Your task to perform on an android device: uninstall "Google News" Image 0: 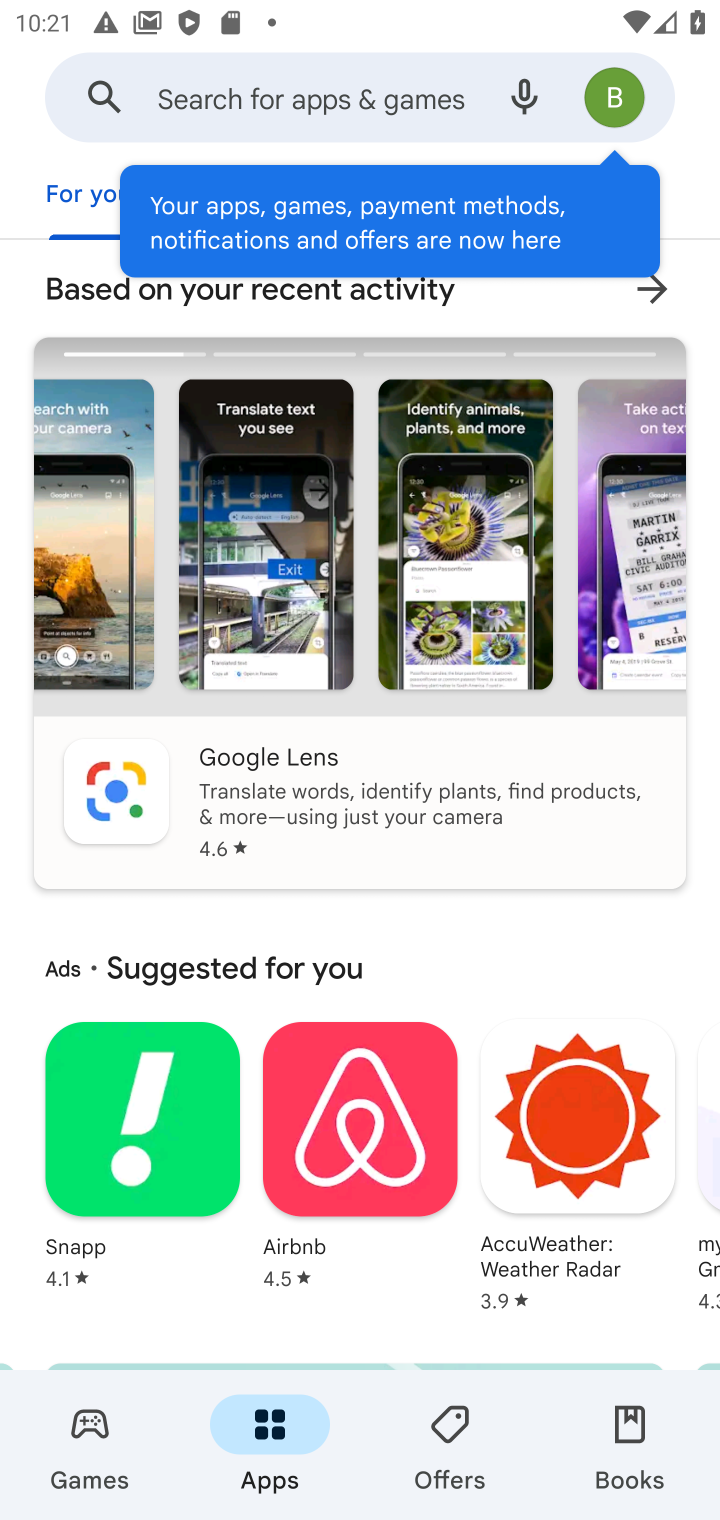
Step 0: click (351, 107)
Your task to perform on an android device: uninstall "Google News" Image 1: 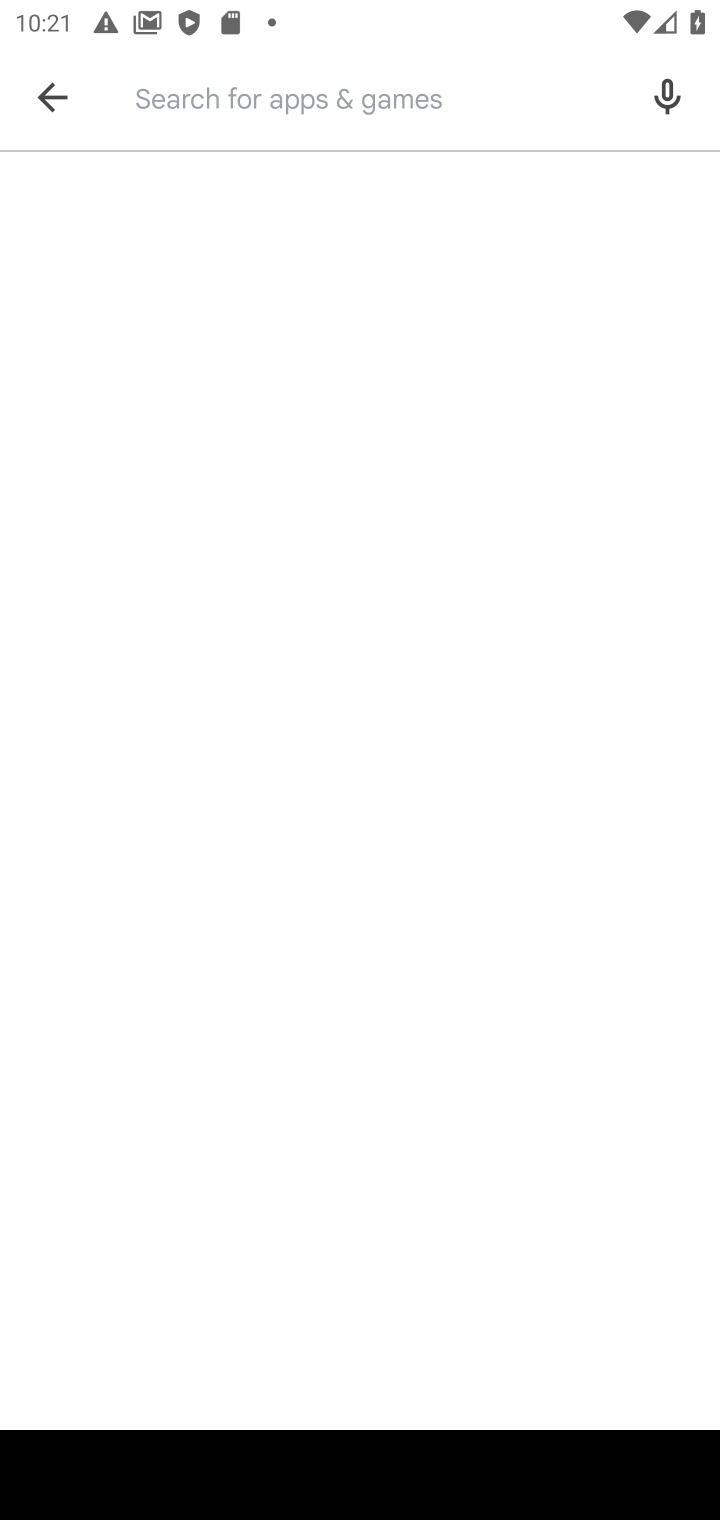
Step 1: type "Google News"
Your task to perform on an android device: uninstall "Google News" Image 2: 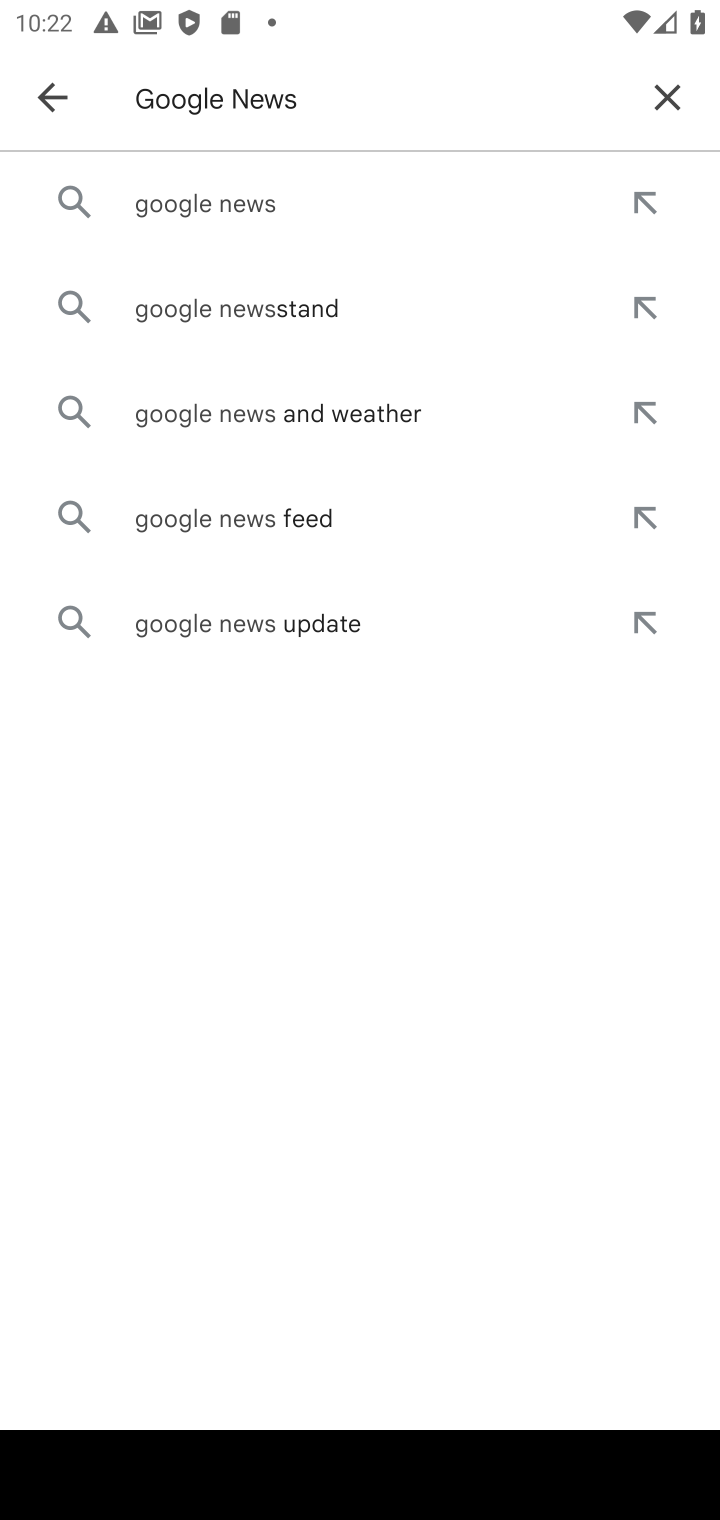
Step 2: click (160, 207)
Your task to perform on an android device: uninstall "Google News" Image 3: 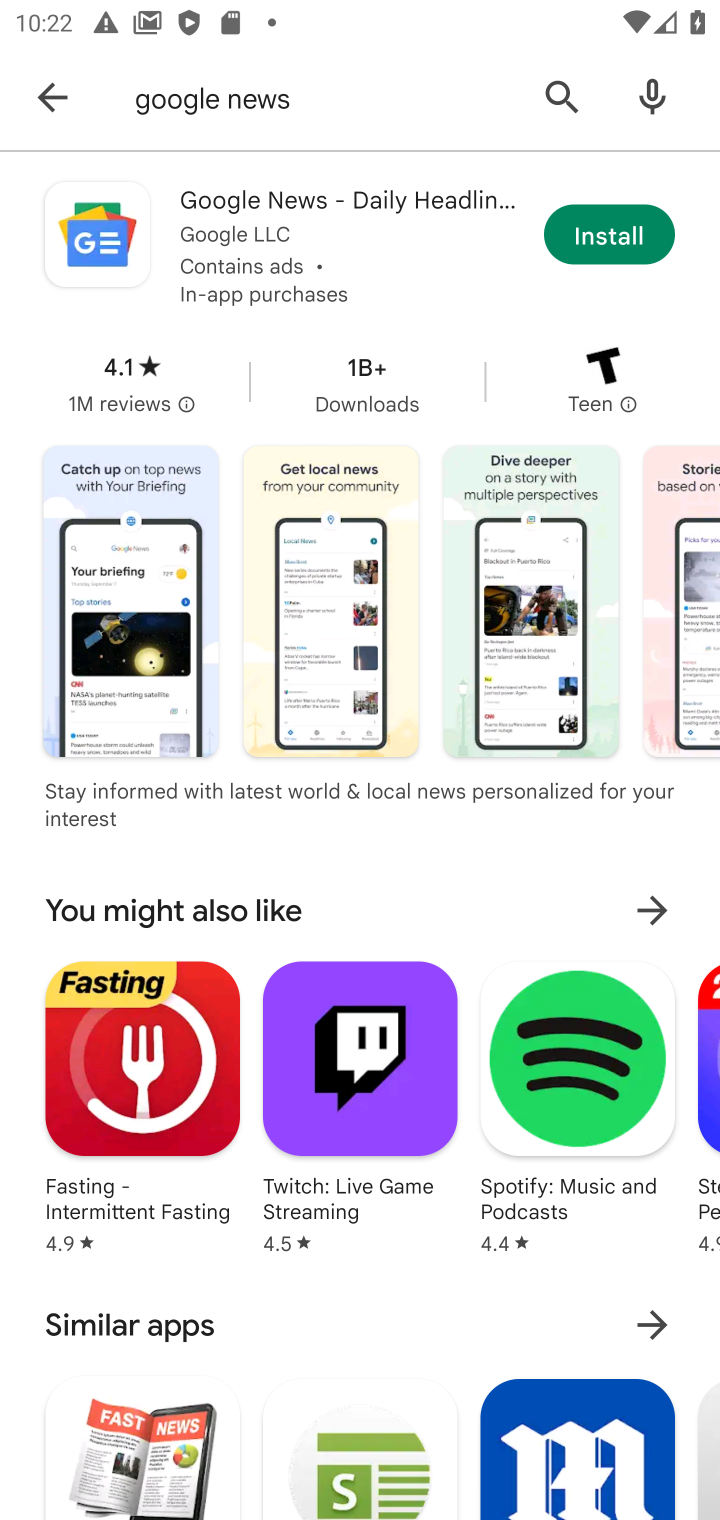
Step 3: task complete